Your task to perform on an android device: turn off location Image 0: 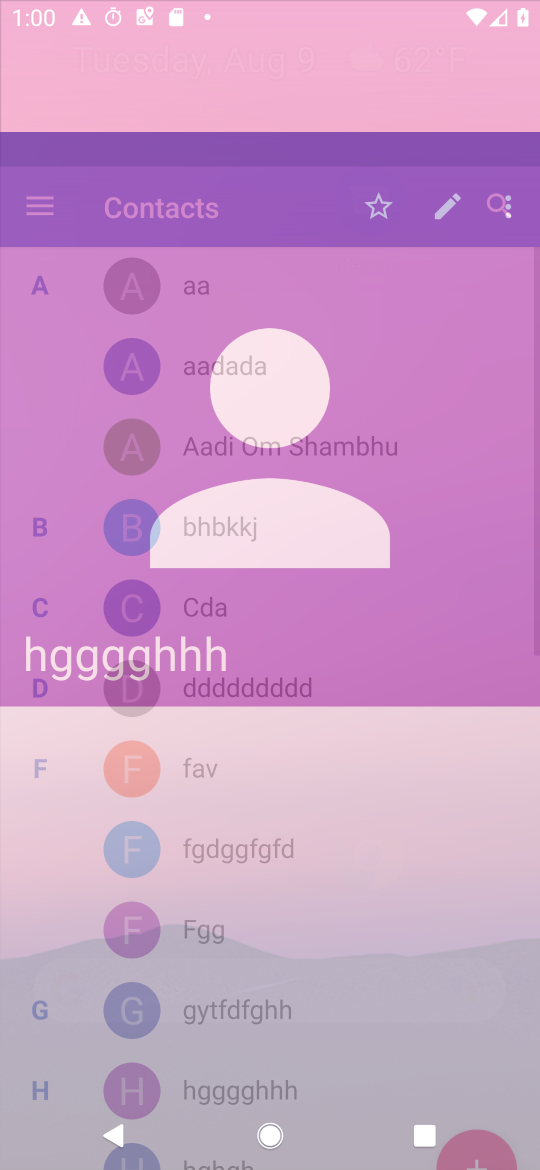
Step 0: drag from (42, 1138) to (406, 641)
Your task to perform on an android device: turn off location Image 1: 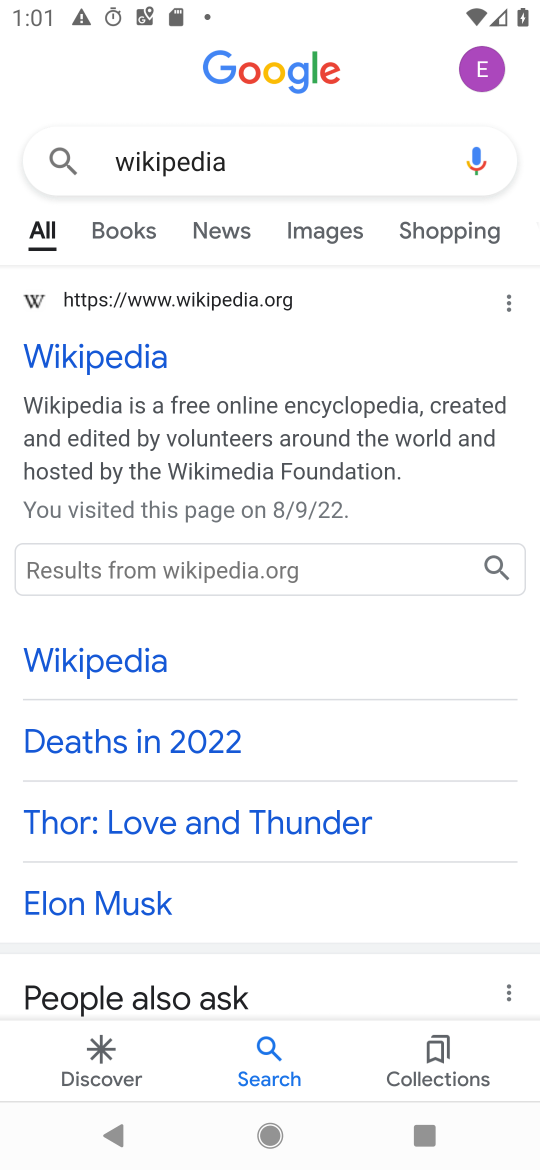
Step 1: task complete